Your task to perform on an android device: Search for the new Apple Watch on Best Buy Image 0: 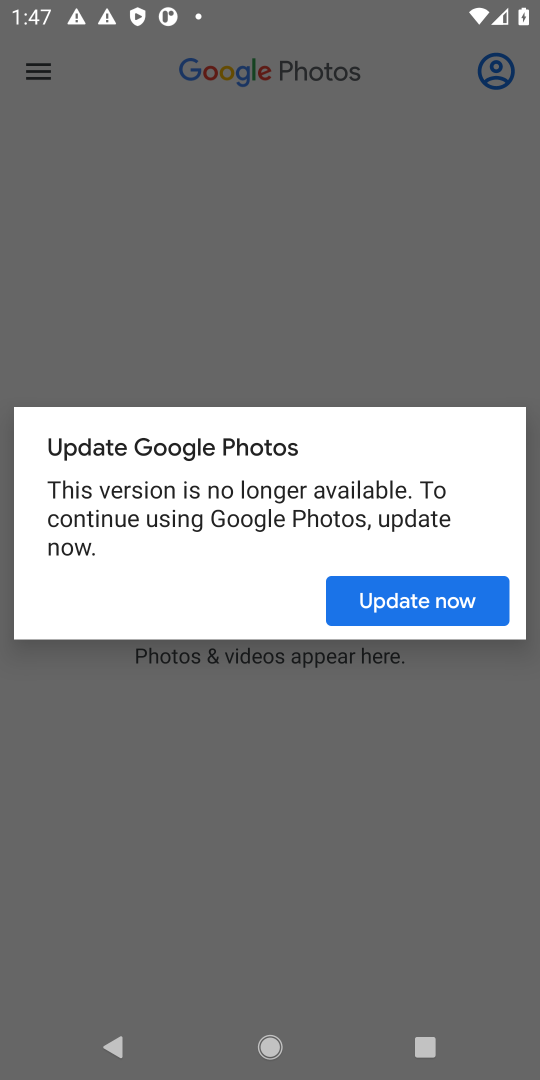
Step 0: press home button
Your task to perform on an android device: Search for the new Apple Watch on Best Buy Image 1: 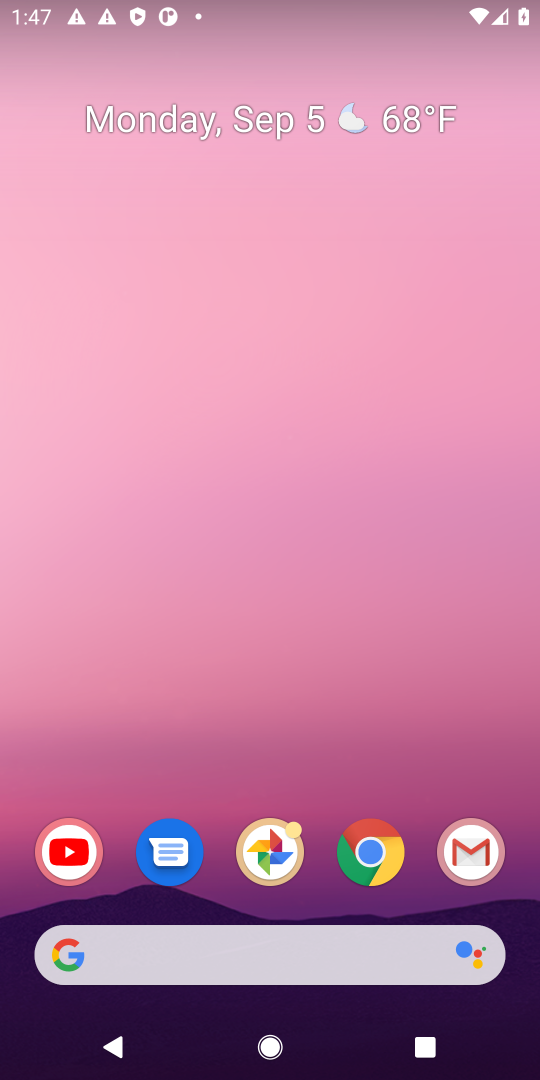
Step 1: click (370, 853)
Your task to perform on an android device: Search for the new Apple Watch on Best Buy Image 2: 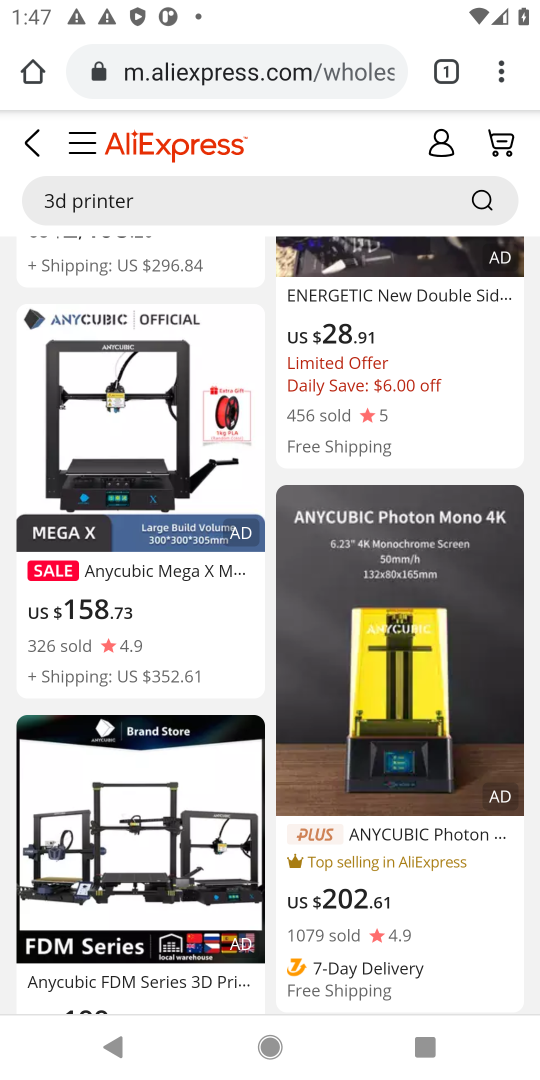
Step 2: click (242, 46)
Your task to perform on an android device: Search for the new Apple Watch on Best Buy Image 3: 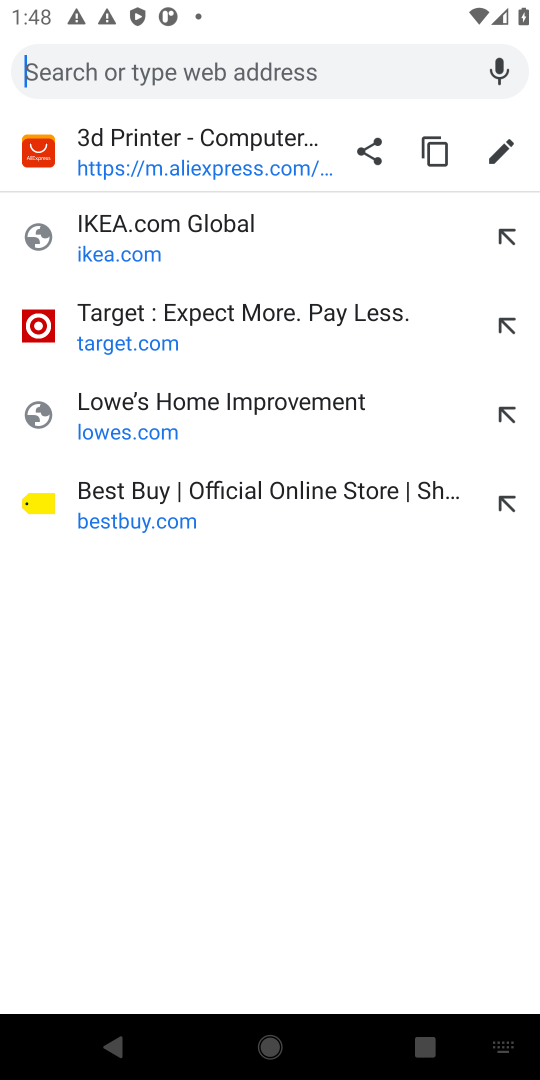
Step 3: type "Best buy"
Your task to perform on an android device: Search for the new Apple Watch on Best Buy Image 4: 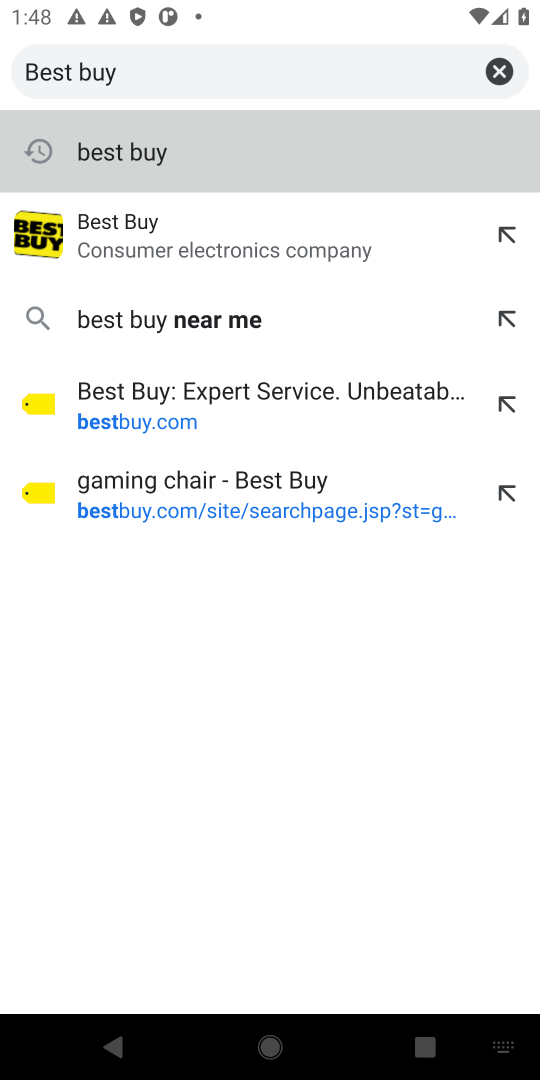
Step 4: click (113, 222)
Your task to perform on an android device: Search for the new Apple Watch on Best Buy Image 5: 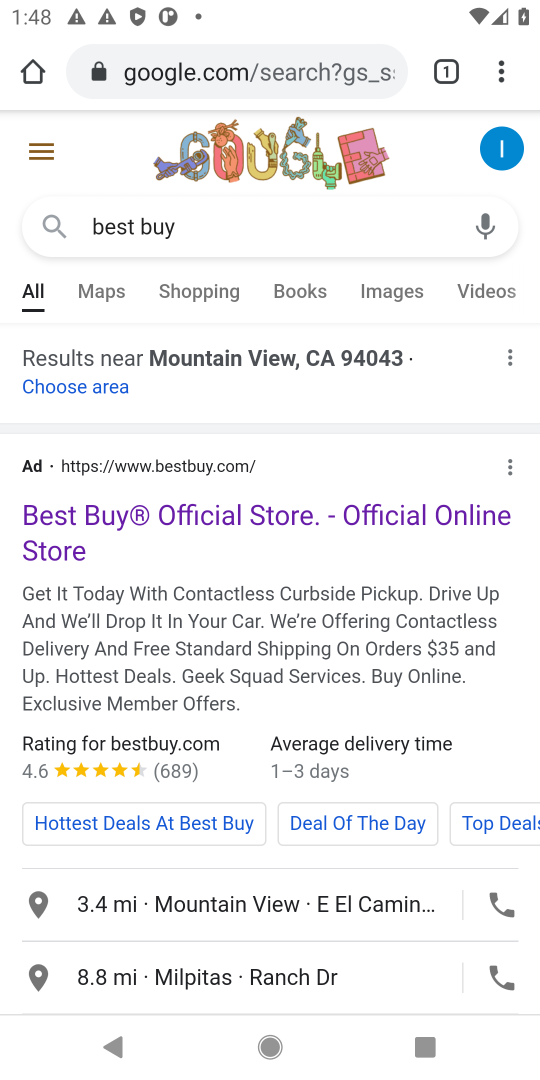
Step 5: click (51, 516)
Your task to perform on an android device: Search for the new Apple Watch on Best Buy Image 6: 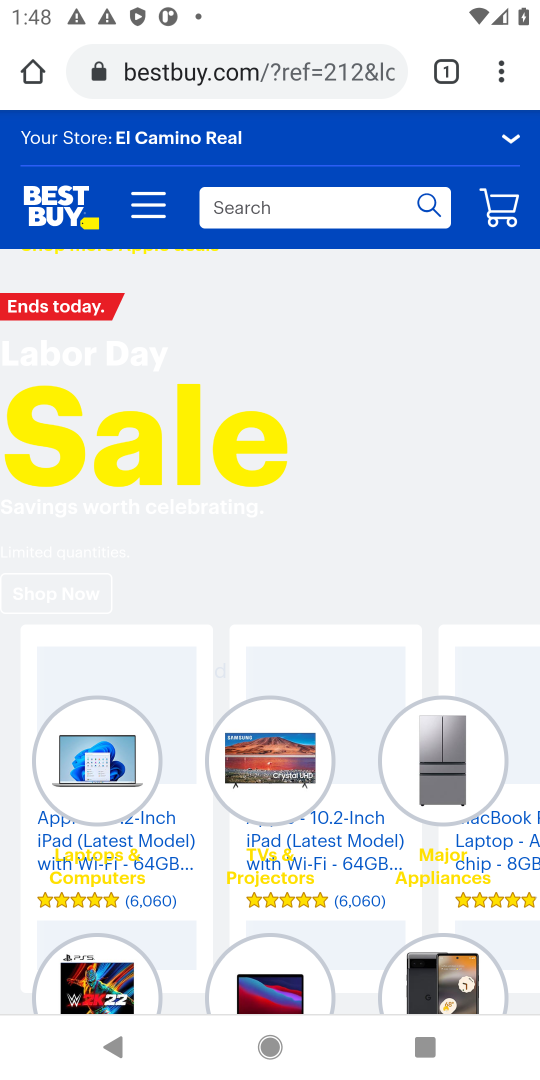
Step 6: click (252, 204)
Your task to perform on an android device: Search for the new Apple Watch on Best Buy Image 7: 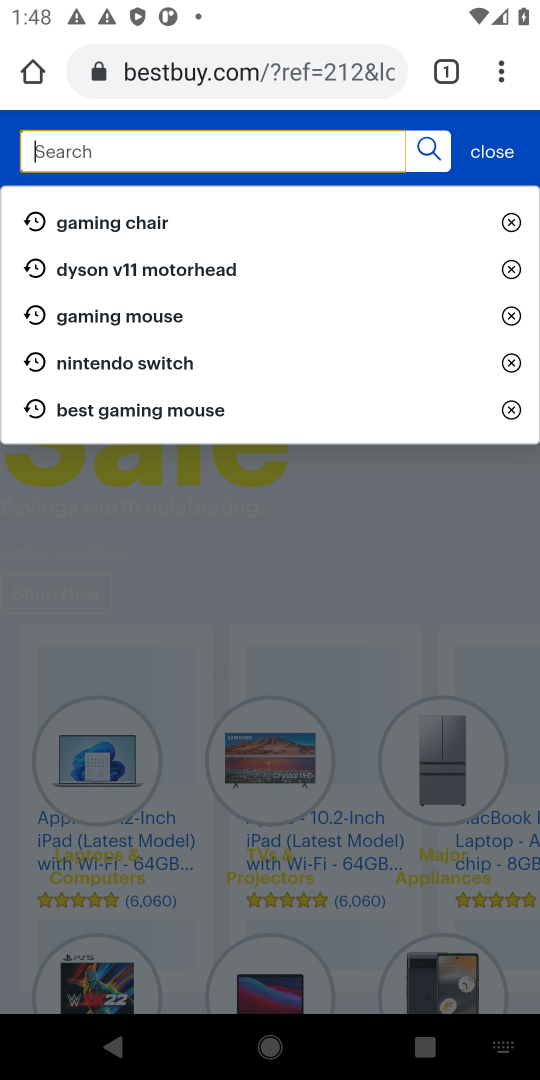
Step 7: type " Apple Watch"
Your task to perform on an android device: Search for the new Apple Watch on Best Buy Image 8: 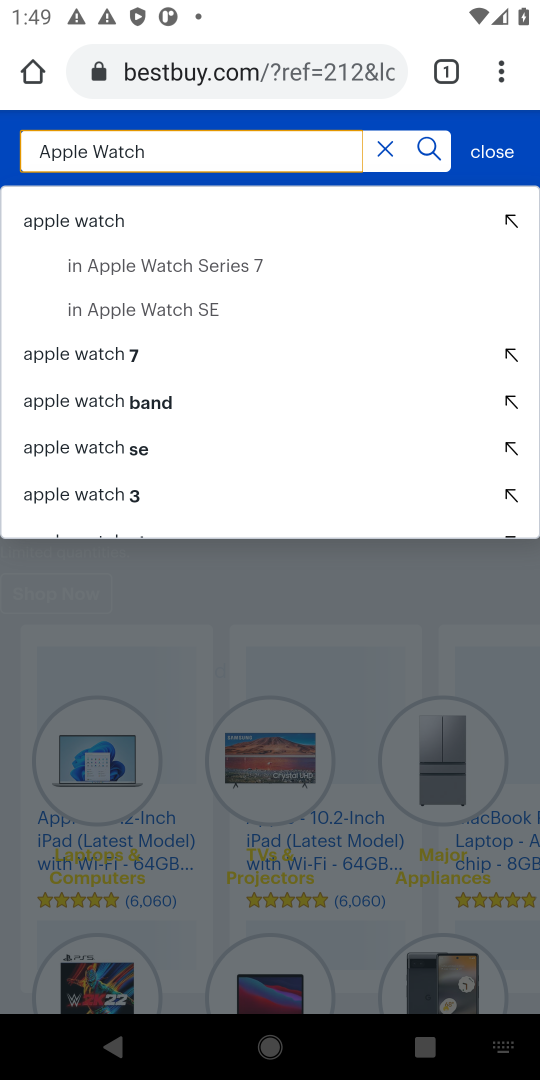
Step 8: click (82, 212)
Your task to perform on an android device: Search for the new Apple Watch on Best Buy Image 9: 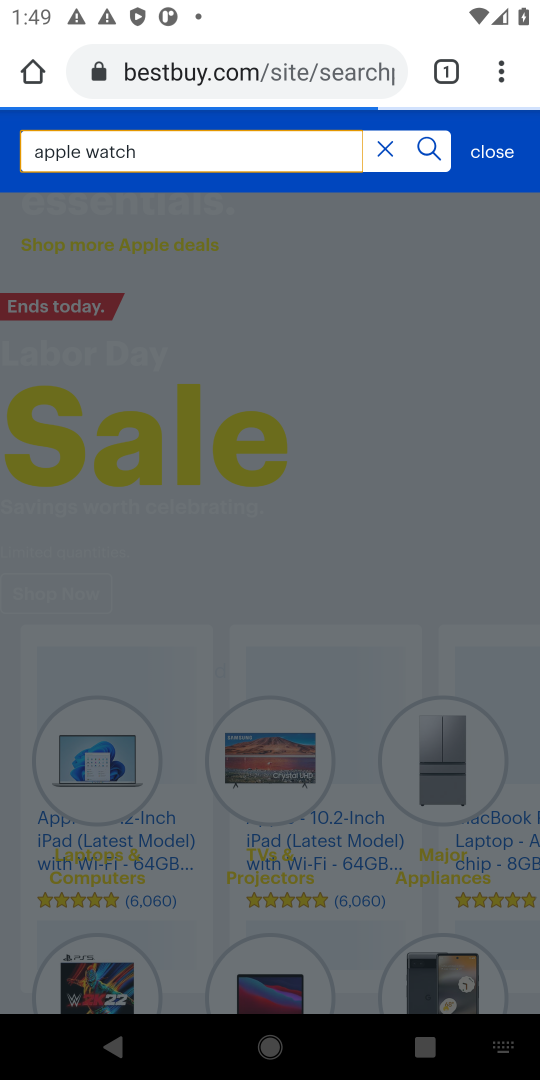
Step 9: click (434, 151)
Your task to perform on an android device: Search for the new Apple Watch on Best Buy Image 10: 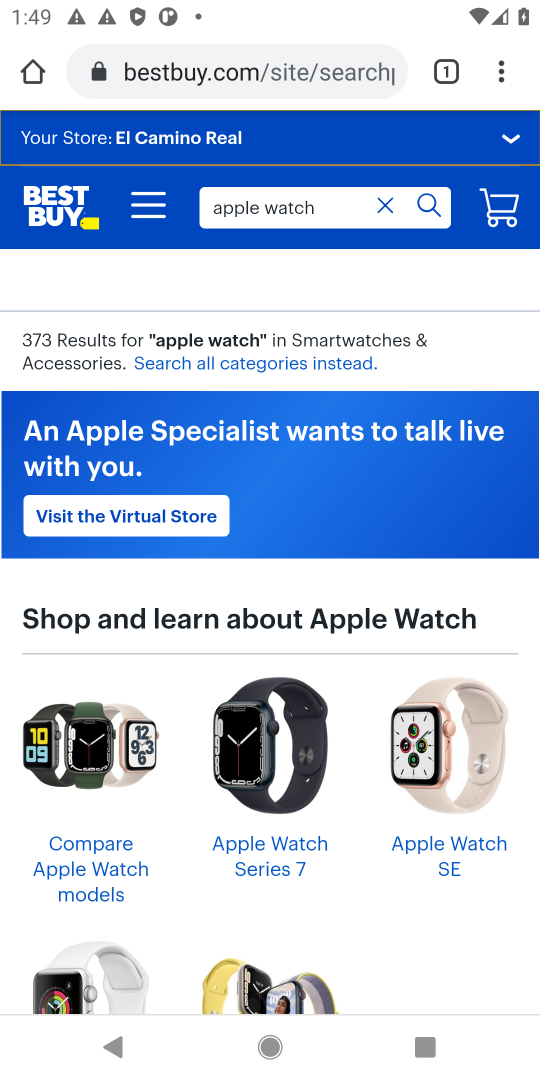
Step 10: task complete